Your task to perform on an android device: Open Chrome and go to the settings page Image 0: 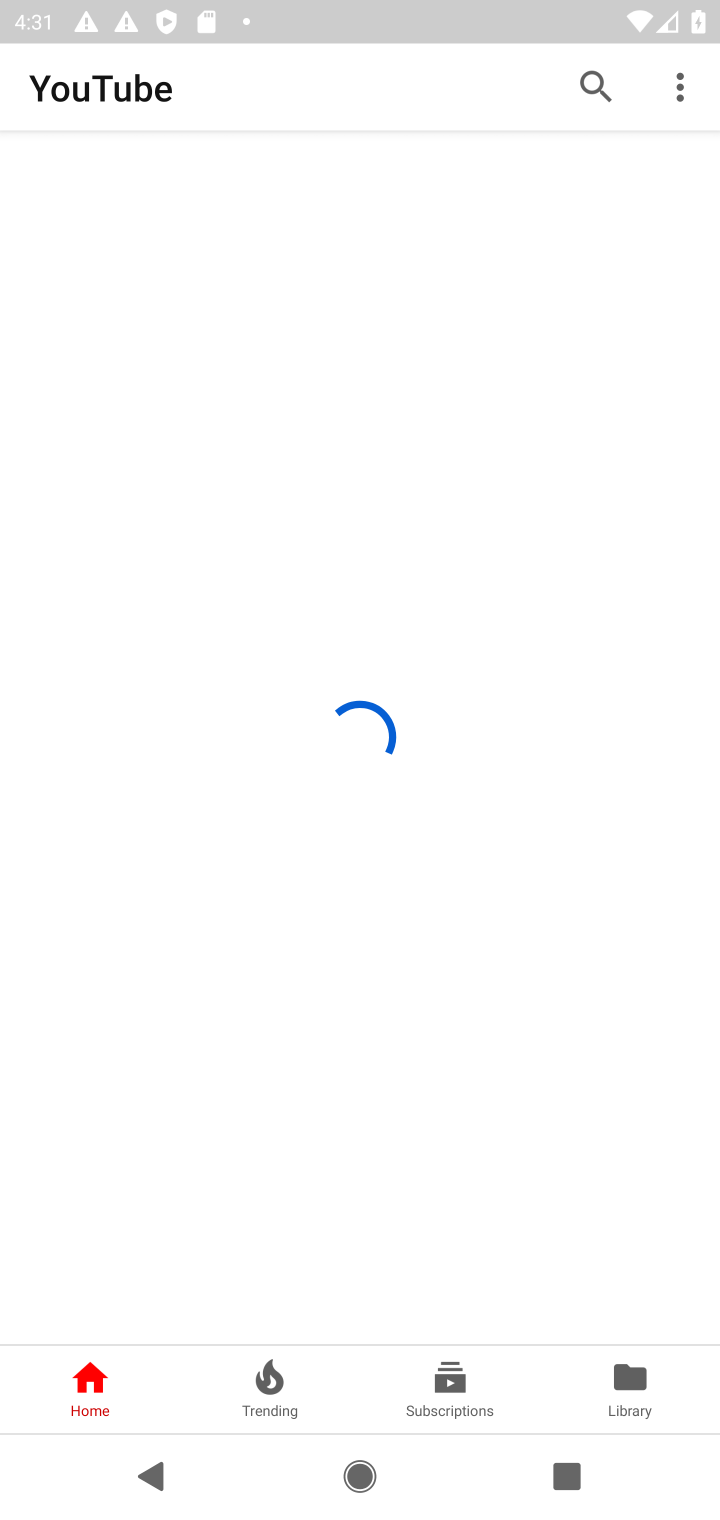
Step 0: drag from (372, 1303) to (395, 319)
Your task to perform on an android device: Open Chrome and go to the settings page Image 1: 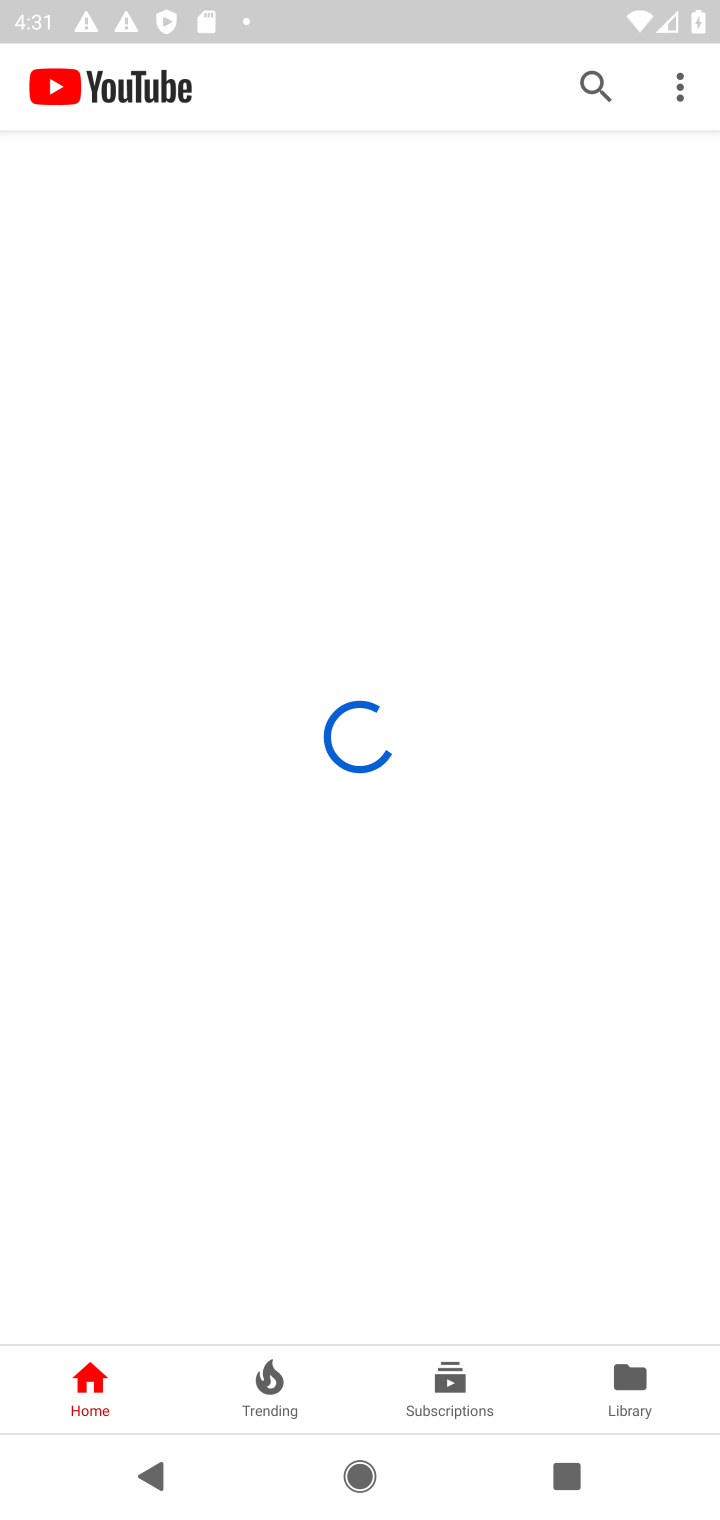
Step 1: press home button
Your task to perform on an android device: Open Chrome and go to the settings page Image 2: 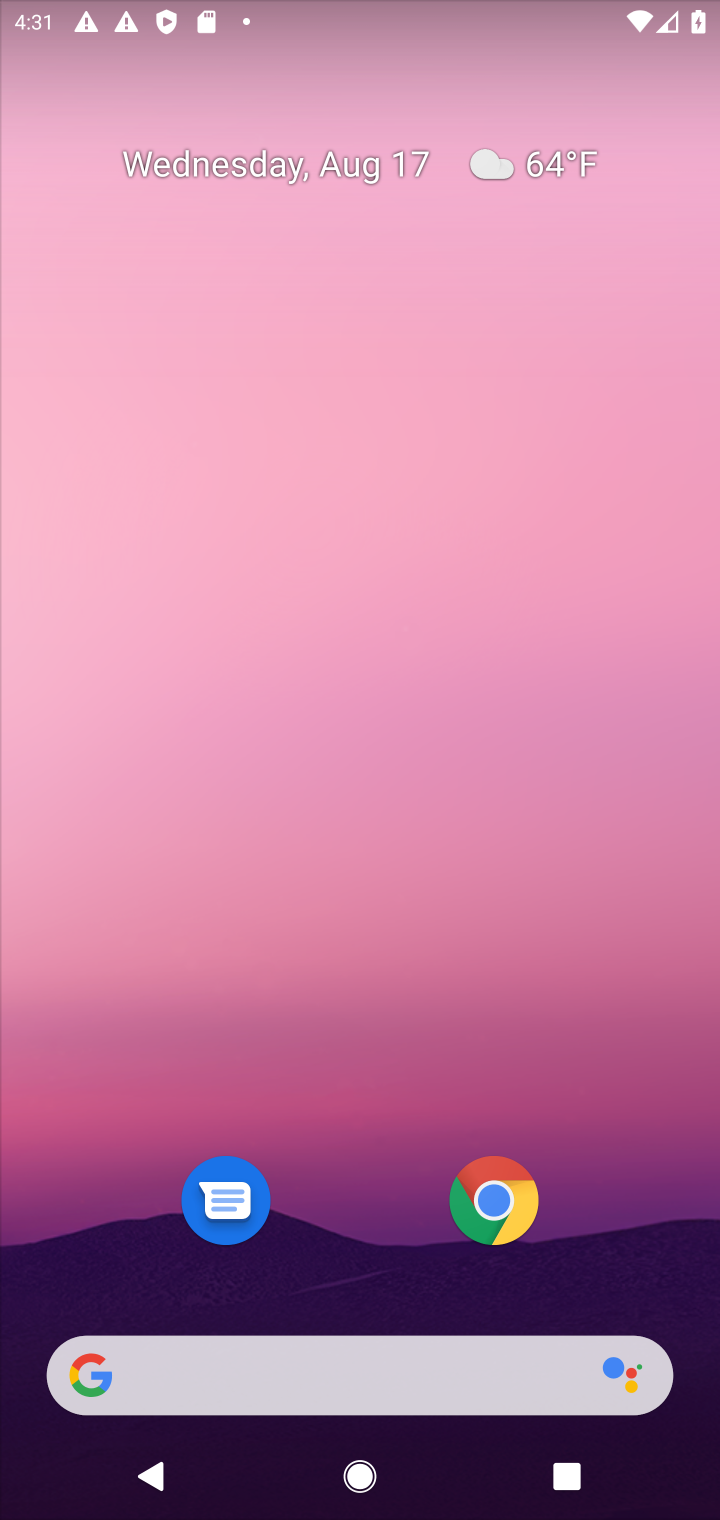
Step 2: click (493, 1202)
Your task to perform on an android device: Open Chrome and go to the settings page Image 3: 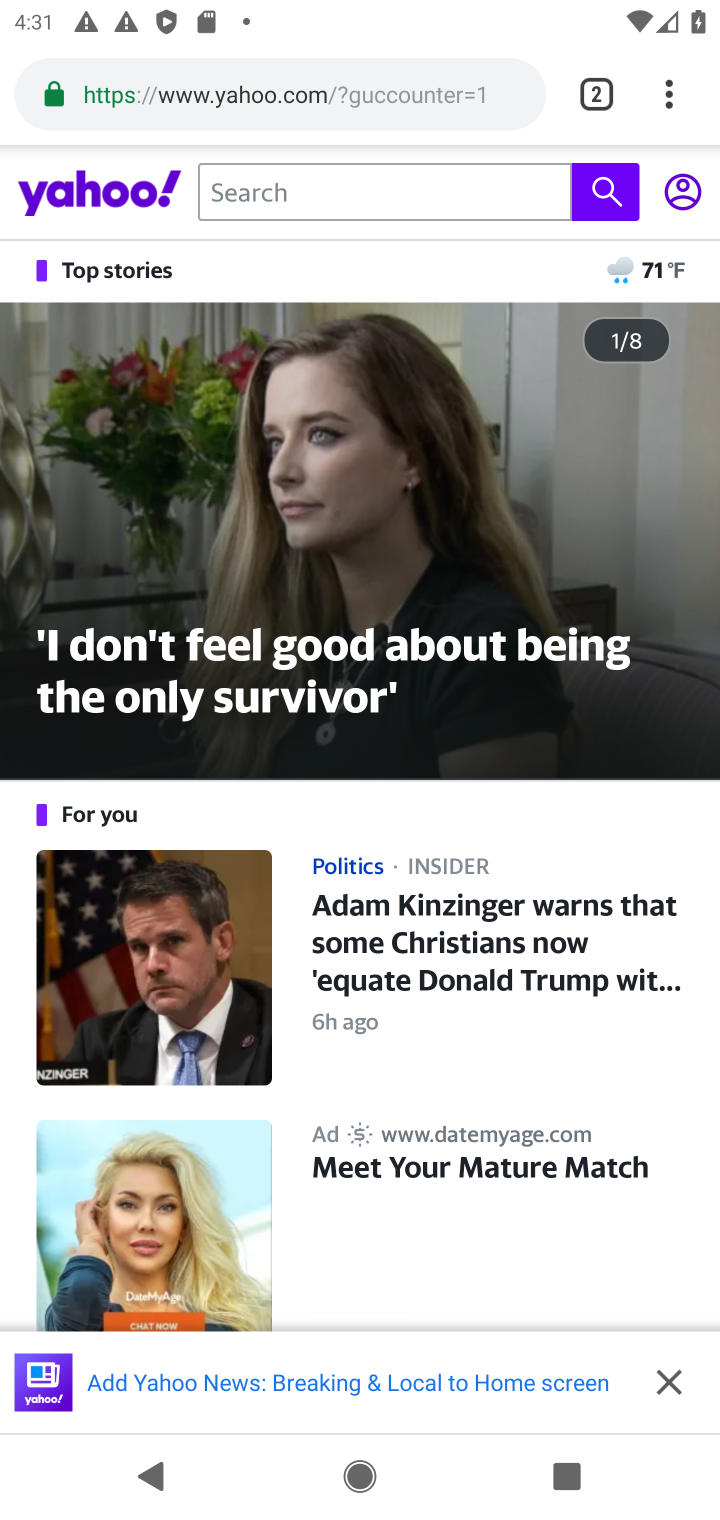
Step 3: task complete